Your task to perform on an android device: set an alarm Image 0: 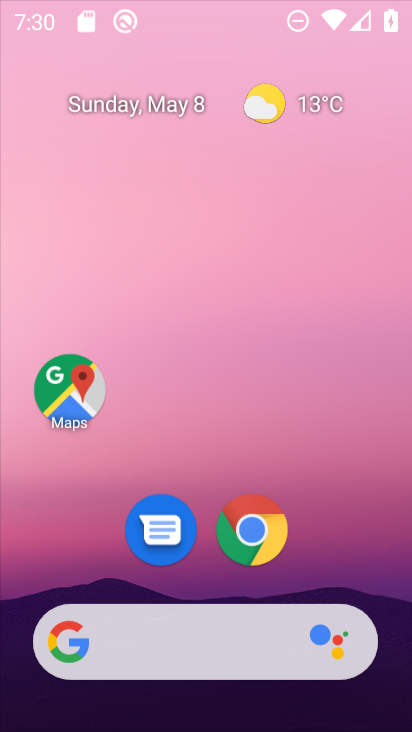
Step 0: press home button
Your task to perform on an android device: set an alarm Image 1: 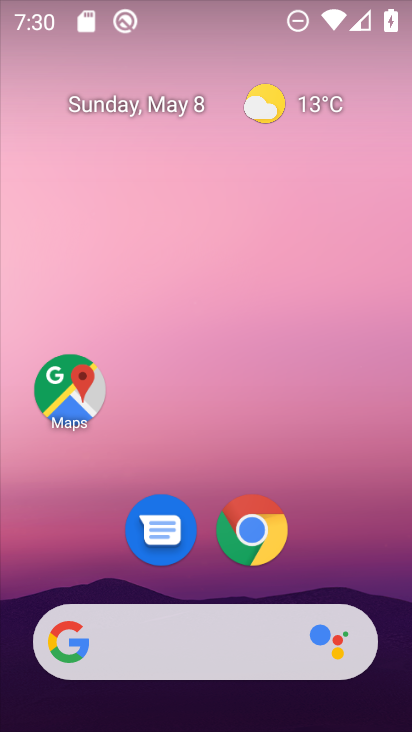
Step 1: press home button
Your task to perform on an android device: set an alarm Image 2: 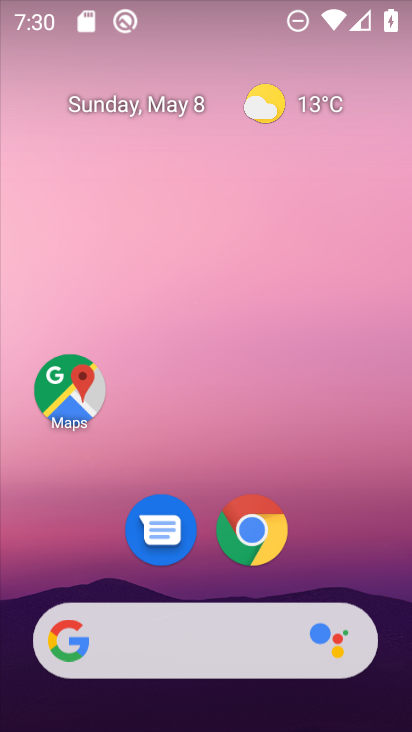
Step 2: drag from (199, 582) to (223, 83)
Your task to perform on an android device: set an alarm Image 3: 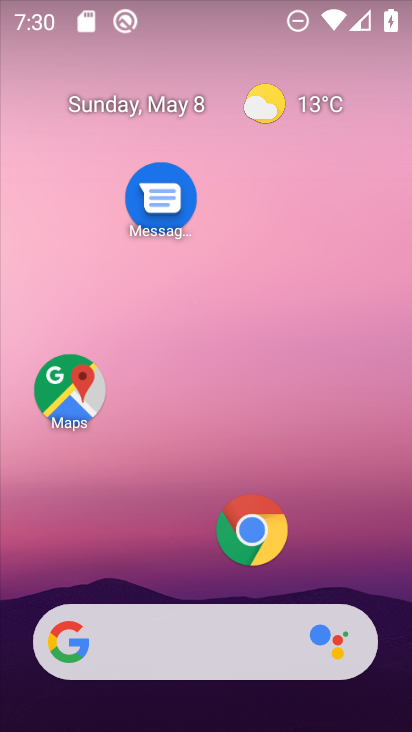
Step 3: drag from (194, 578) to (233, 103)
Your task to perform on an android device: set an alarm Image 4: 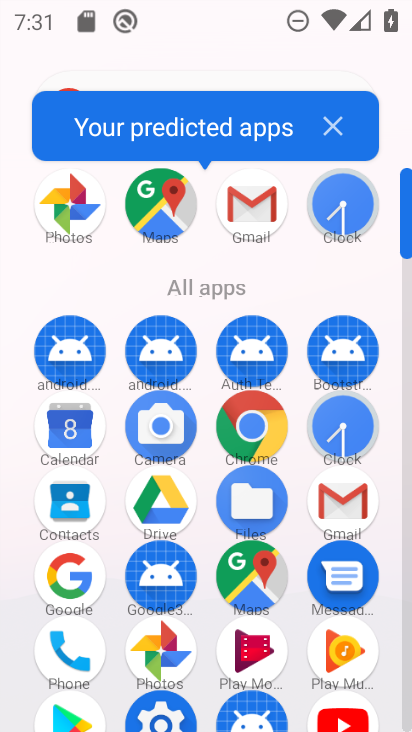
Step 4: click (338, 420)
Your task to perform on an android device: set an alarm Image 5: 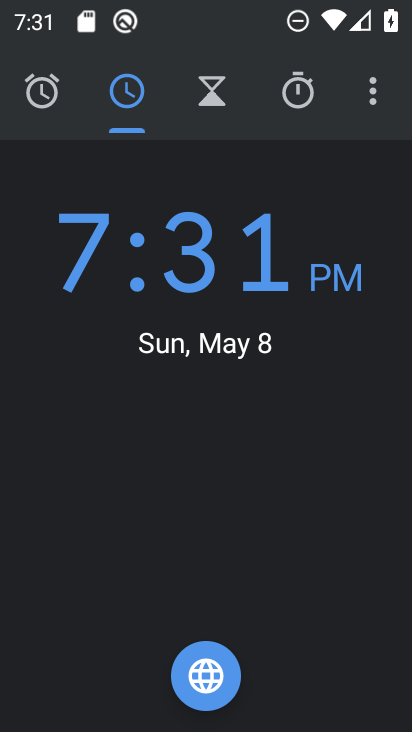
Step 5: click (54, 90)
Your task to perform on an android device: set an alarm Image 6: 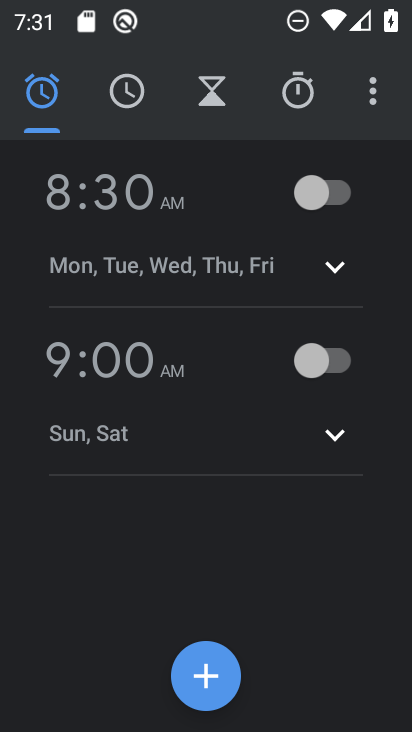
Step 6: click (126, 194)
Your task to perform on an android device: set an alarm Image 7: 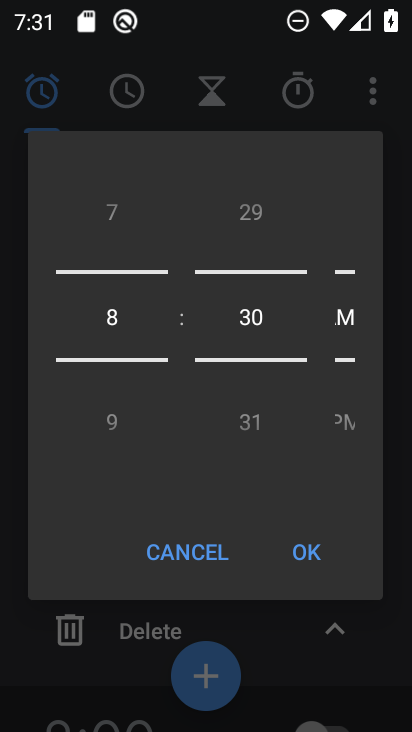
Step 7: click (310, 564)
Your task to perform on an android device: set an alarm Image 8: 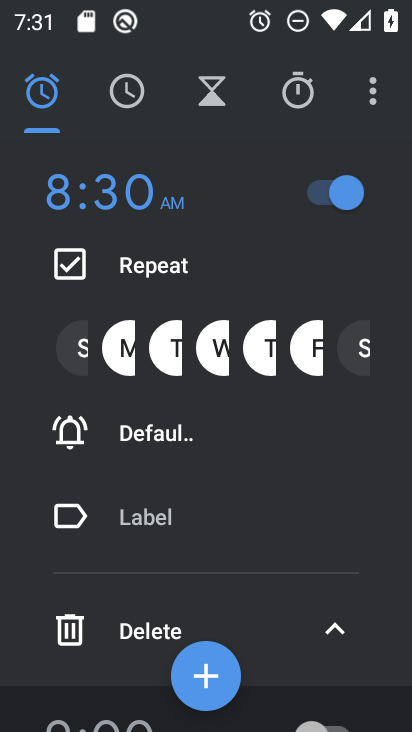
Step 8: click (138, 434)
Your task to perform on an android device: set an alarm Image 9: 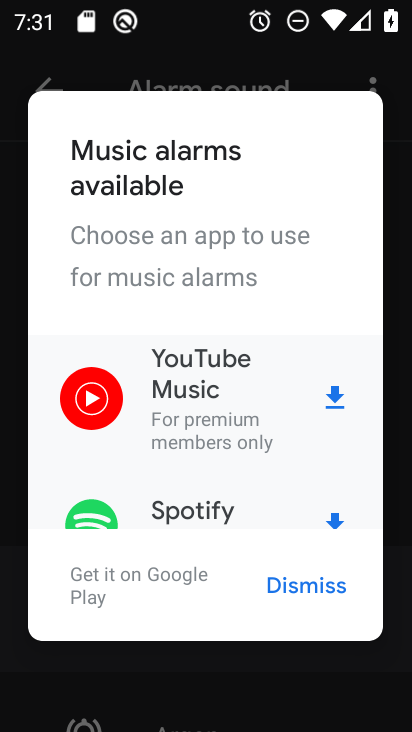
Step 9: click (315, 592)
Your task to perform on an android device: set an alarm Image 10: 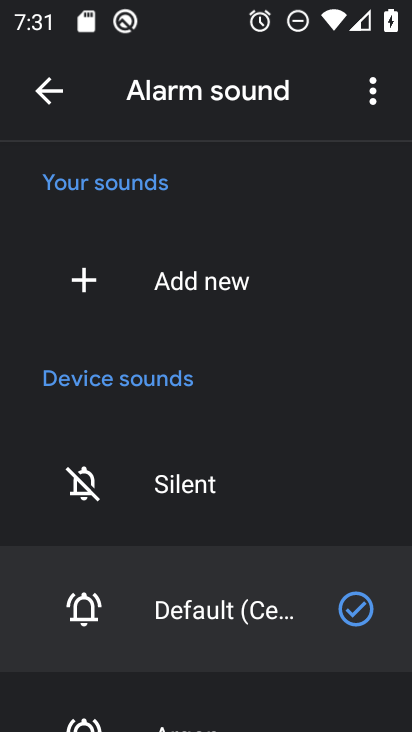
Step 10: click (178, 704)
Your task to perform on an android device: set an alarm Image 11: 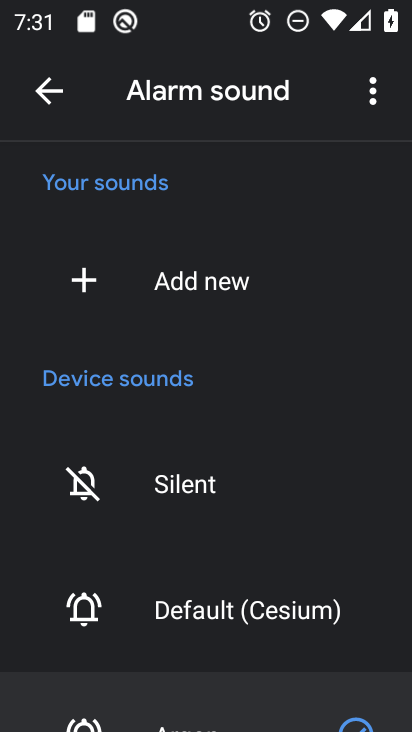
Step 11: click (56, 98)
Your task to perform on an android device: set an alarm Image 12: 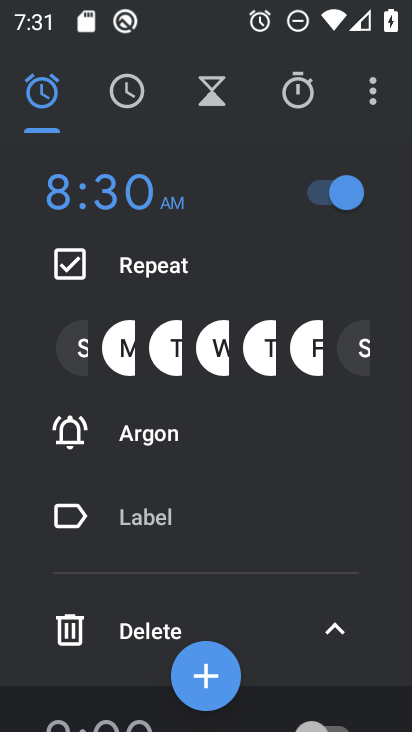
Step 12: task complete